Your task to perform on an android device: See recent photos Image 0: 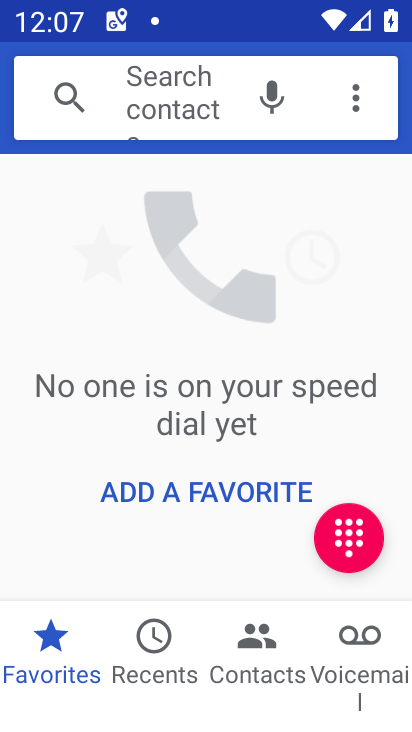
Step 0: press home button
Your task to perform on an android device: See recent photos Image 1: 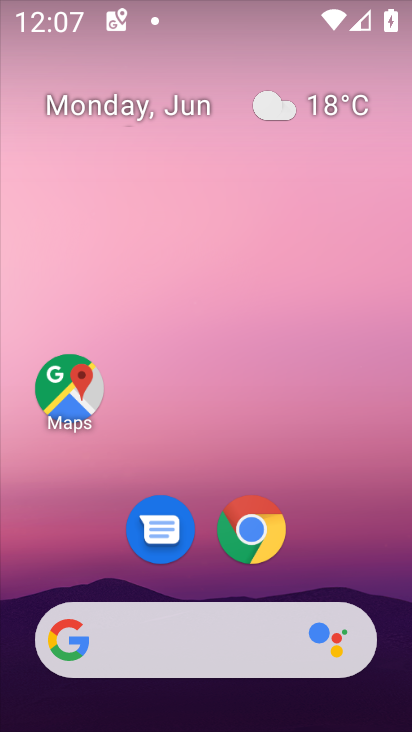
Step 1: drag from (283, 128) to (298, 4)
Your task to perform on an android device: See recent photos Image 2: 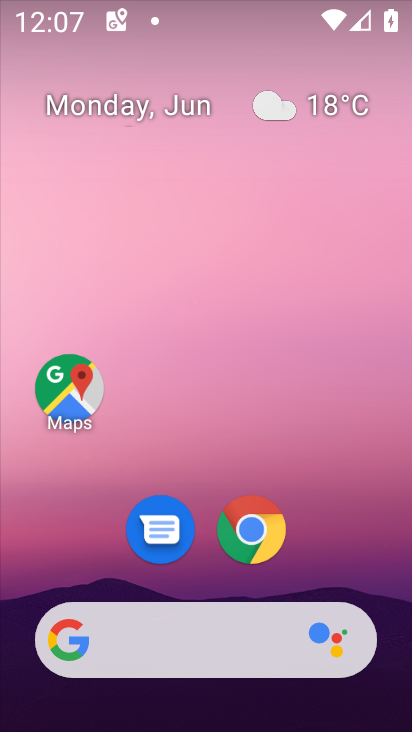
Step 2: drag from (322, 458) to (207, 43)
Your task to perform on an android device: See recent photos Image 3: 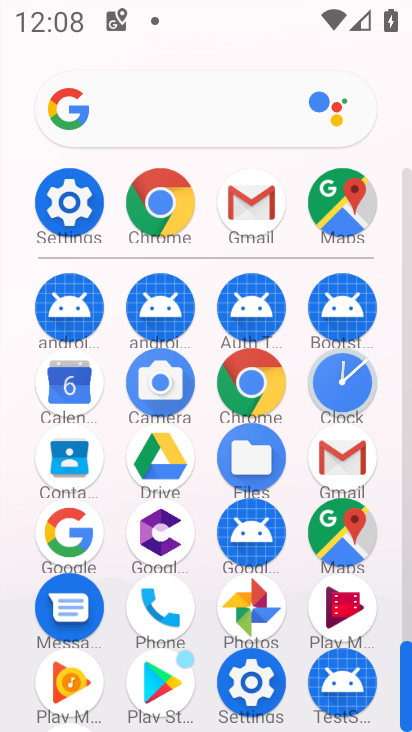
Step 3: click (266, 603)
Your task to perform on an android device: See recent photos Image 4: 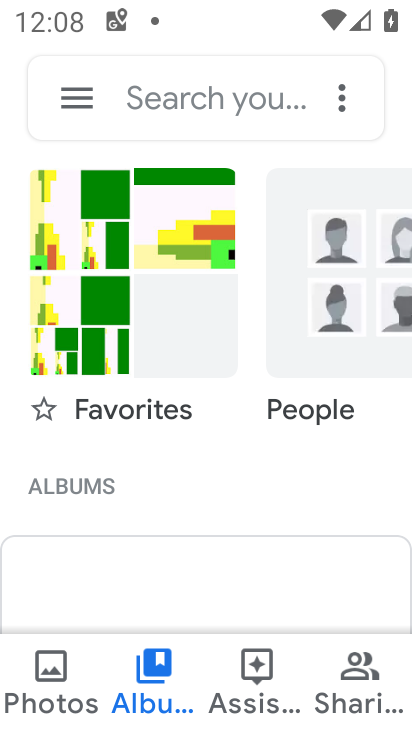
Step 4: click (65, 678)
Your task to perform on an android device: See recent photos Image 5: 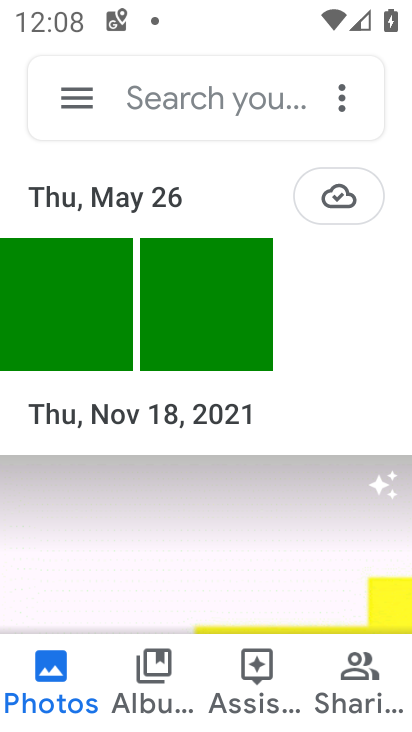
Step 5: task complete